Your task to perform on an android device: turn off sleep mode Image 0: 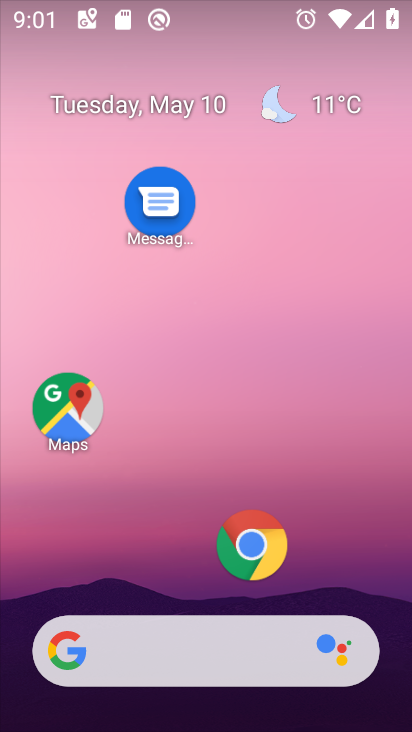
Step 0: press home button
Your task to perform on an android device: turn off sleep mode Image 1: 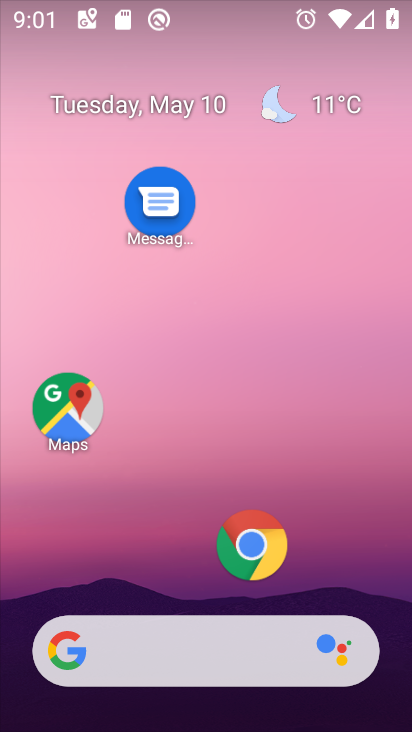
Step 1: drag from (178, 601) to (195, 81)
Your task to perform on an android device: turn off sleep mode Image 2: 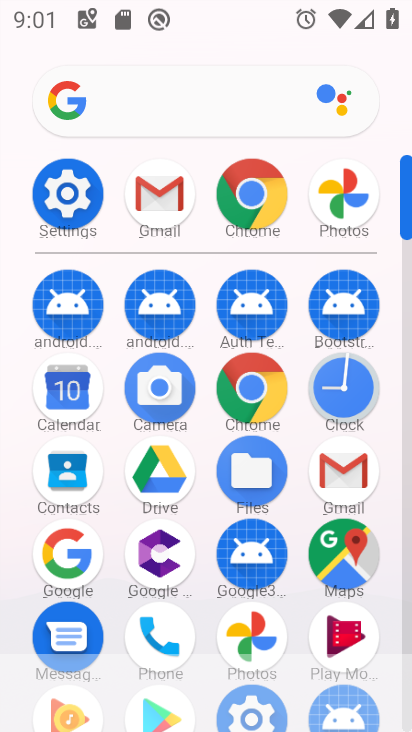
Step 2: click (65, 184)
Your task to perform on an android device: turn off sleep mode Image 3: 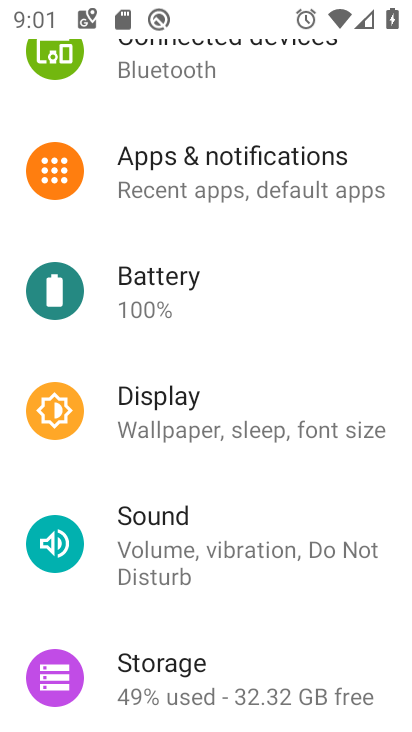
Step 3: click (214, 395)
Your task to perform on an android device: turn off sleep mode Image 4: 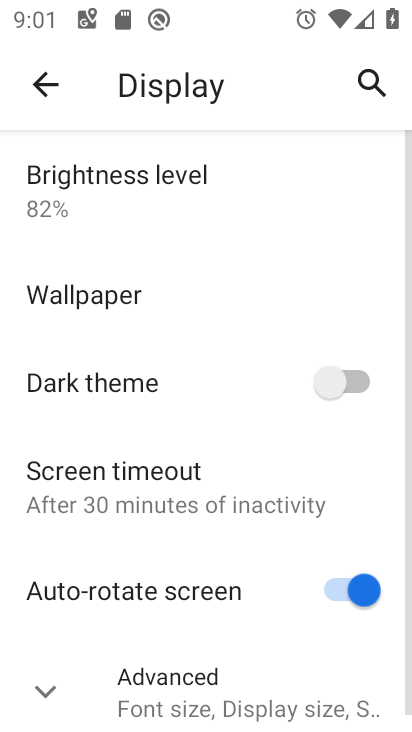
Step 4: drag from (152, 611) to (157, 198)
Your task to perform on an android device: turn off sleep mode Image 5: 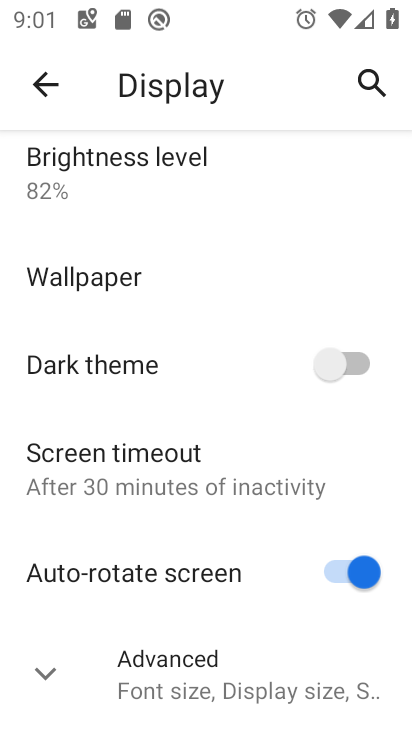
Step 5: click (47, 678)
Your task to perform on an android device: turn off sleep mode Image 6: 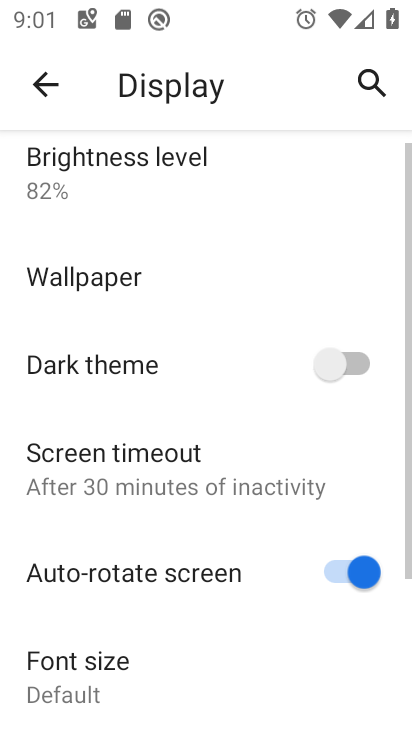
Step 6: task complete